Your task to perform on an android device: change notifications settings Image 0: 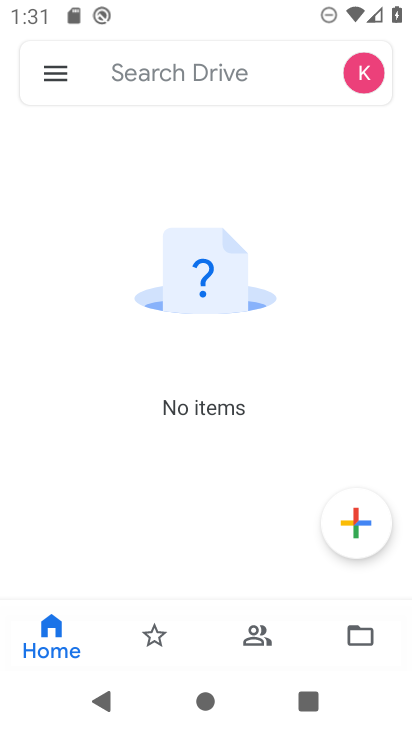
Step 0: press home button
Your task to perform on an android device: change notifications settings Image 1: 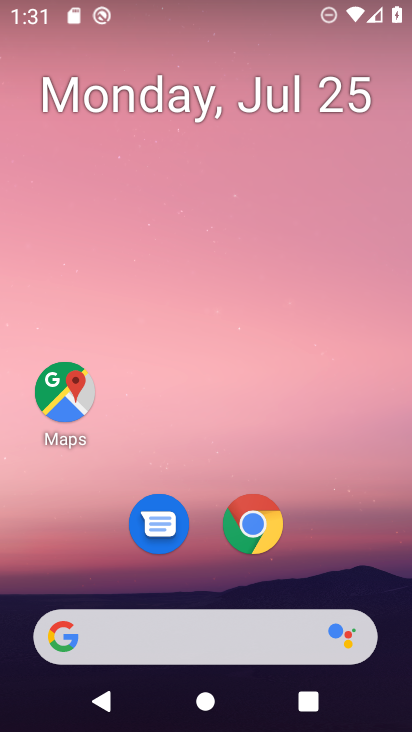
Step 1: drag from (188, 635) to (303, 35)
Your task to perform on an android device: change notifications settings Image 2: 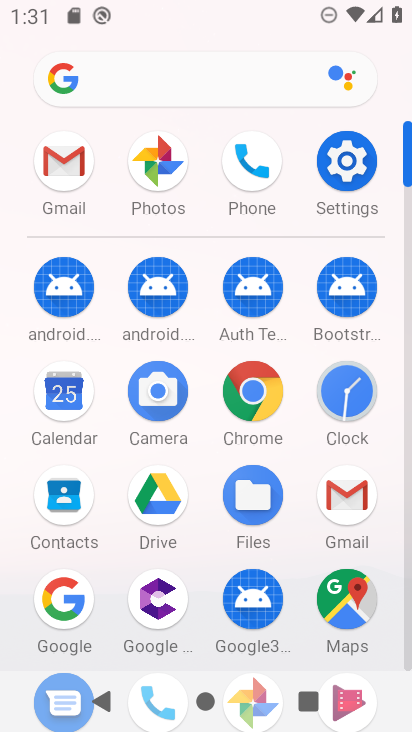
Step 2: click (348, 166)
Your task to perform on an android device: change notifications settings Image 3: 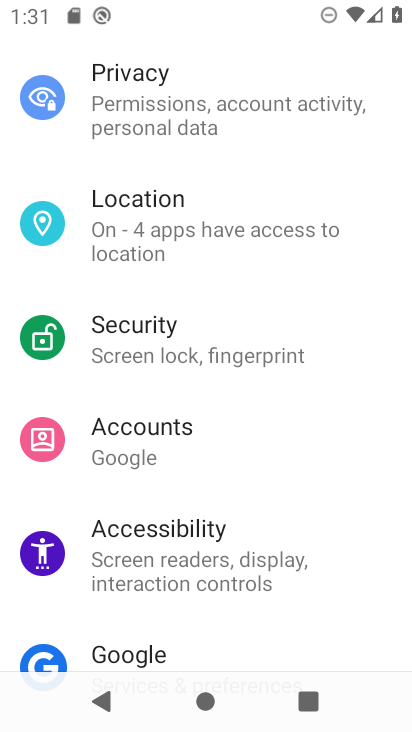
Step 3: drag from (291, 184) to (252, 562)
Your task to perform on an android device: change notifications settings Image 4: 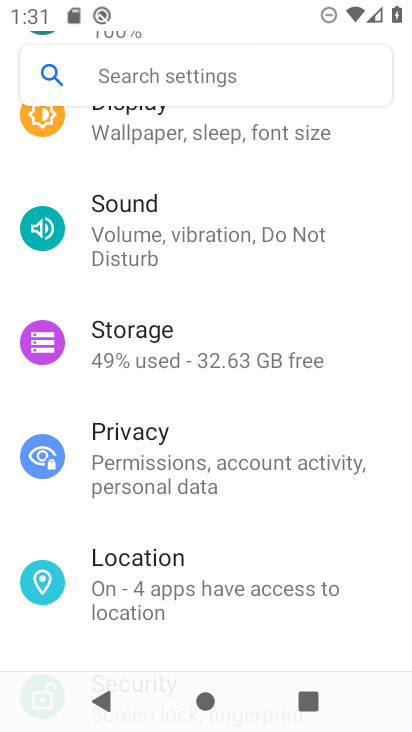
Step 4: drag from (253, 195) to (228, 629)
Your task to perform on an android device: change notifications settings Image 5: 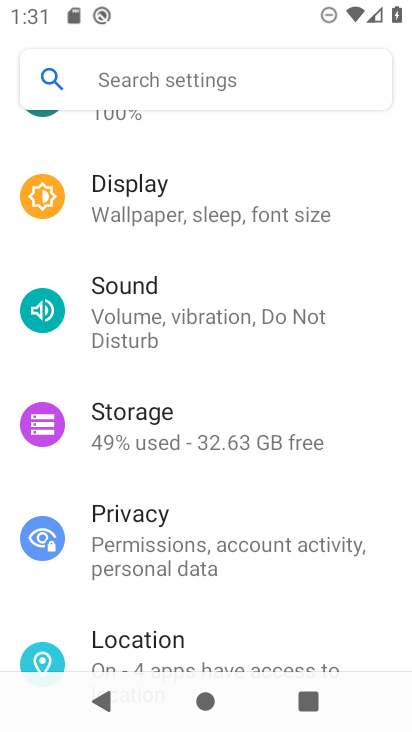
Step 5: drag from (218, 134) to (248, 618)
Your task to perform on an android device: change notifications settings Image 6: 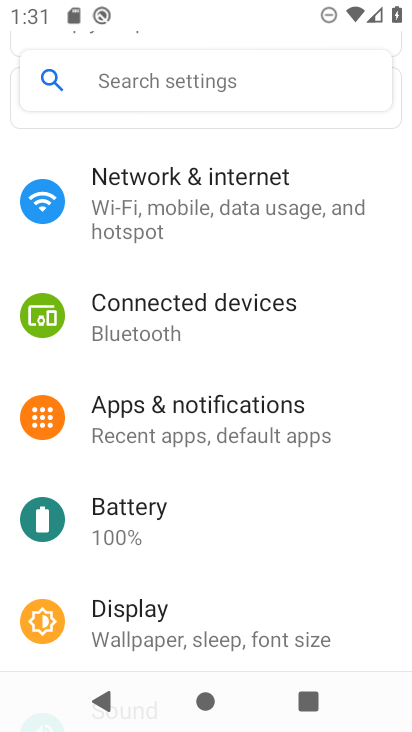
Step 6: click (228, 406)
Your task to perform on an android device: change notifications settings Image 7: 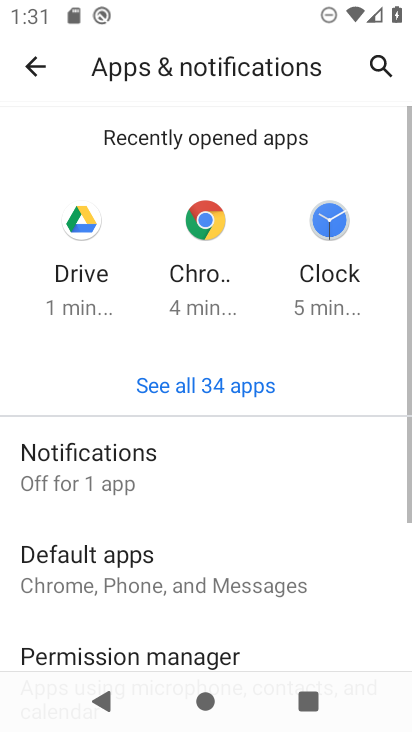
Step 7: click (126, 469)
Your task to perform on an android device: change notifications settings Image 8: 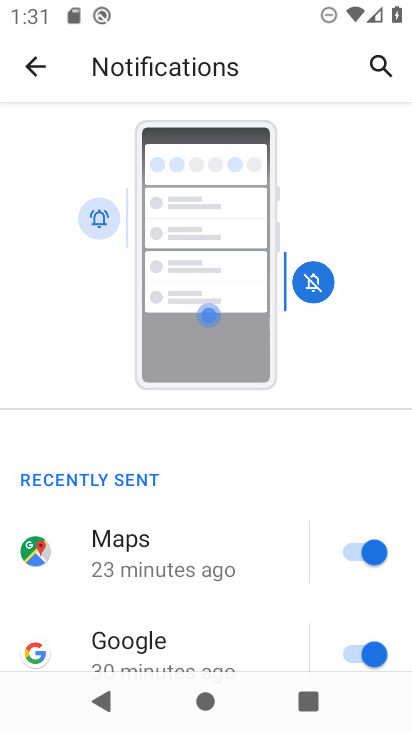
Step 8: task complete